Your task to perform on an android device: check battery use Image 0: 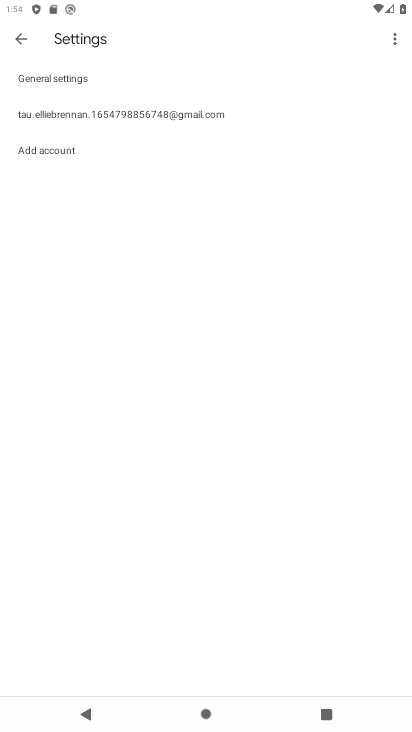
Step 0: press home button
Your task to perform on an android device: check battery use Image 1: 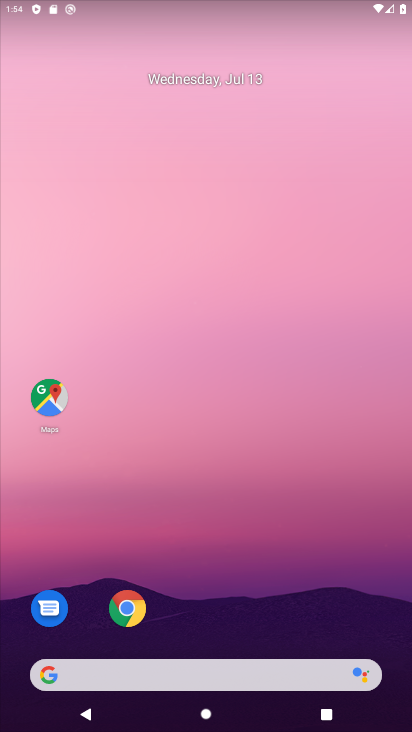
Step 1: drag from (194, 644) to (268, 178)
Your task to perform on an android device: check battery use Image 2: 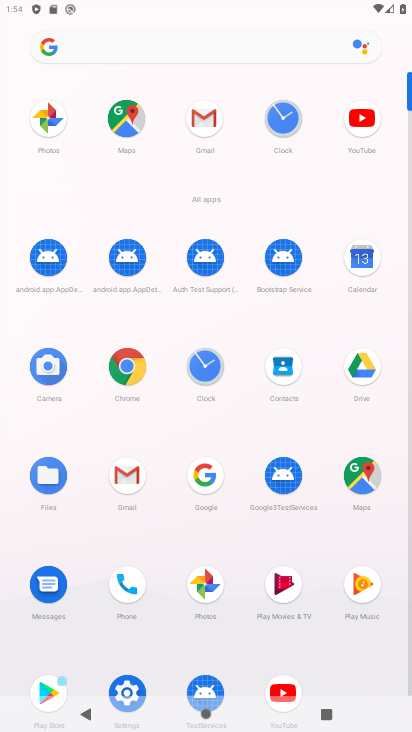
Step 2: click (129, 686)
Your task to perform on an android device: check battery use Image 3: 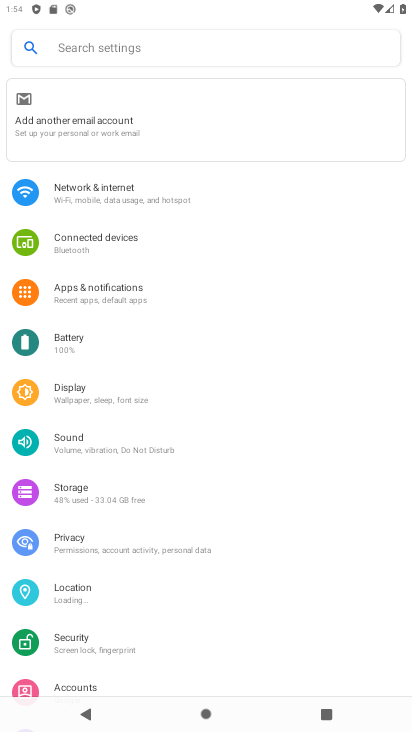
Step 3: click (114, 354)
Your task to perform on an android device: check battery use Image 4: 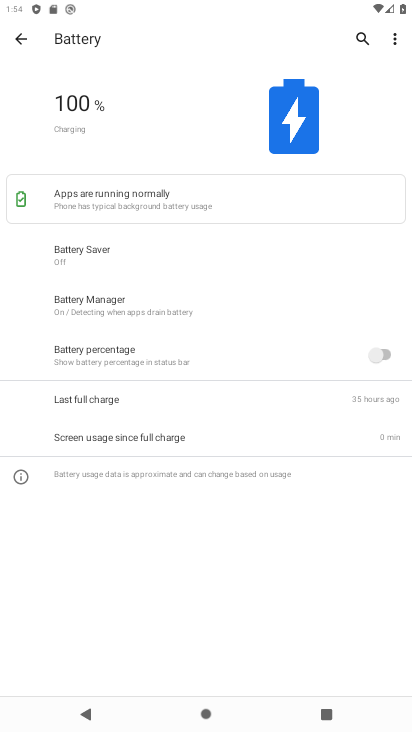
Step 4: click (402, 36)
Your task to perform on an android device: check battery use Image 5: 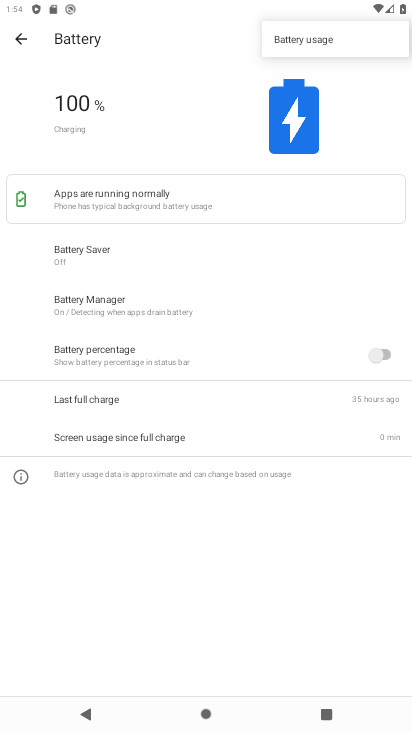
Step 5: click (371, 46)
Your task to perform on an android device: check battery use Image 6: 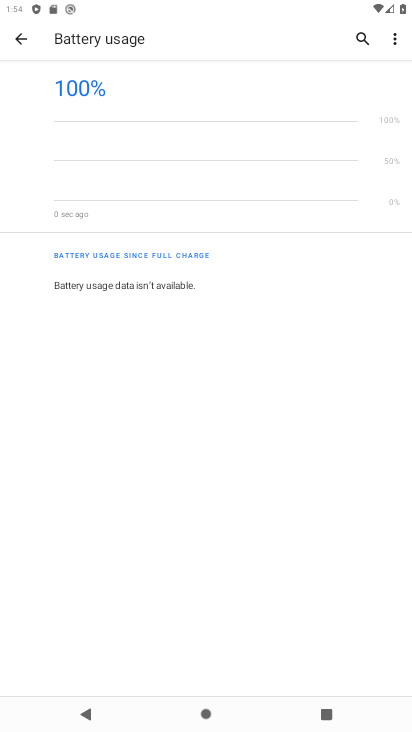
Step 6: task complete